Your task to perform on an android device: turn off location history Image 0: 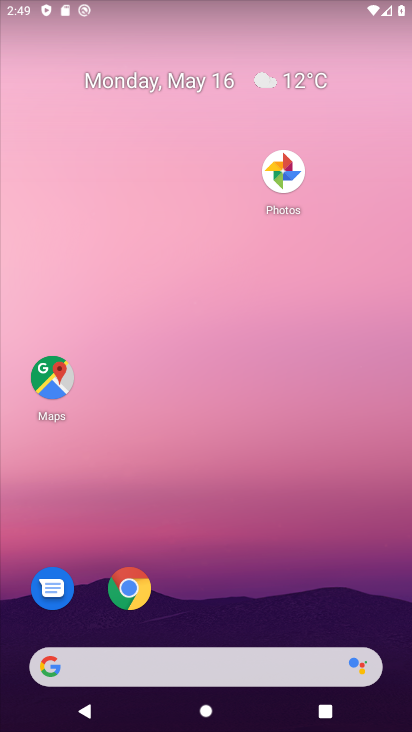
Step 0: drag from (218, 628) to (393, 1)
Your task to perform on an android device: turn off location history Image 1: 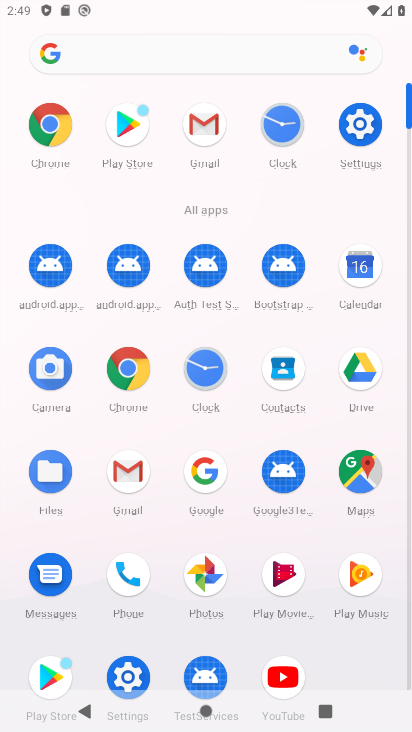
Step 1: click (370, 207)
Your task to perform on an android device: turn off location history Image 2: 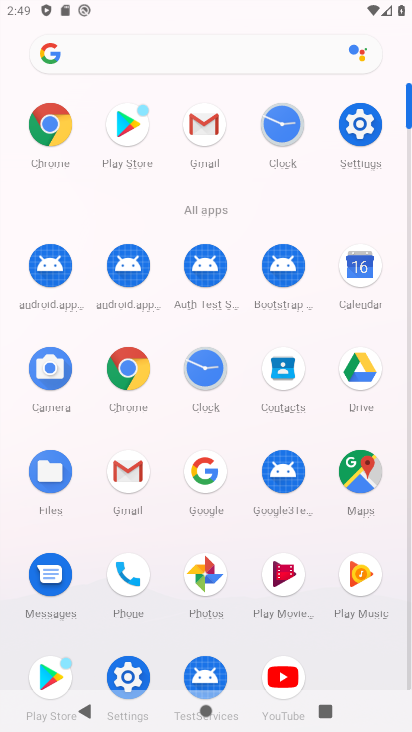
Step 2: click (364, 168)
Your task to perform on an android device: turn off location history Image 3: 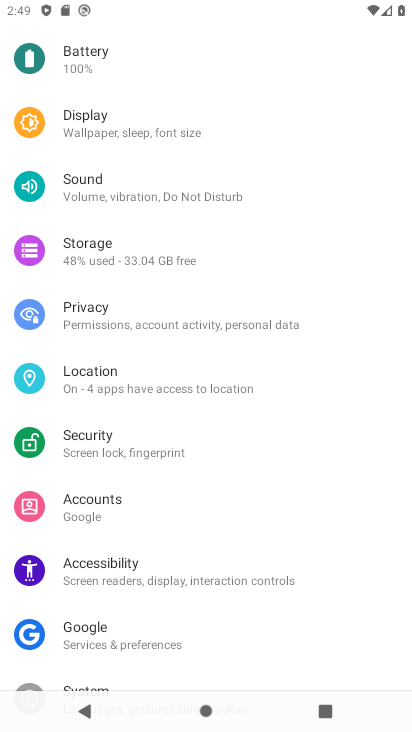
Step 3: click (142, 384)
Your task to perform on an android device: turn off location history Image 4: 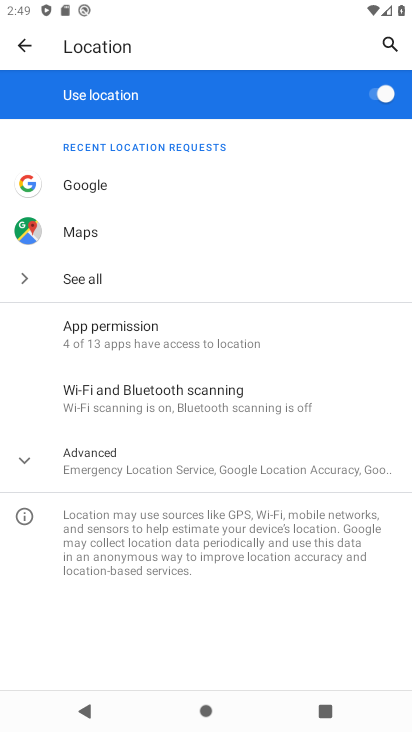
Step 4: click (220, 475)
Your task to perform on an android device: turn off location history Image 5: 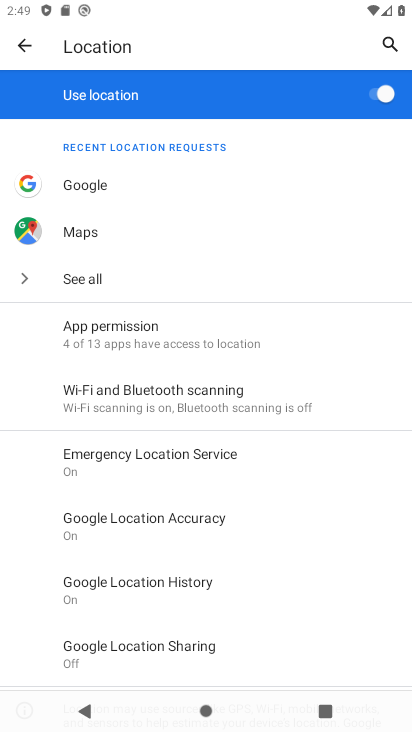
Step 5: click (219, 580)
Your task to perform on an android device: turn off location history Image 6: 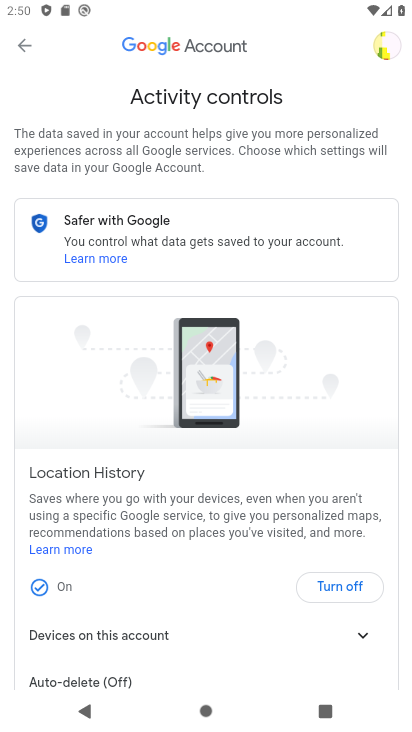
Step 6: click (329, 589)
Your task to perform on an android device: turn off location history Image 7: 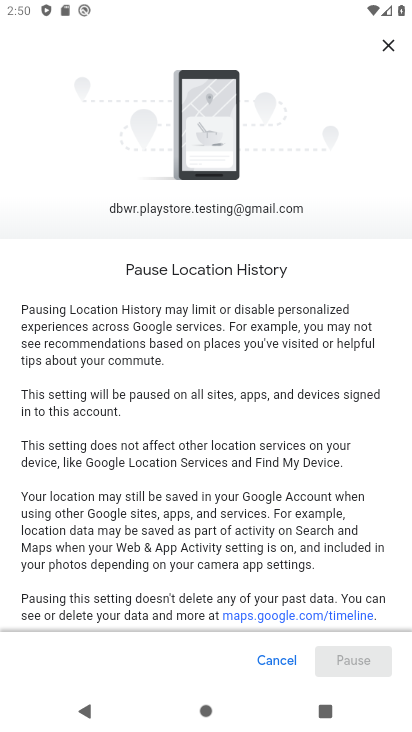
Step 7: drag from (274, 588) to (262, 178)
Your task to perform on an android device: turn off location history Image 8: 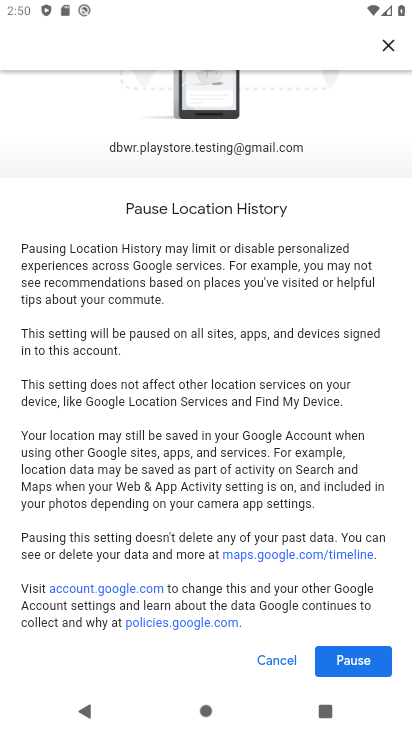
Step 8: click (378, 665)
Your task to perform on an android device: turn off location history Image 9: 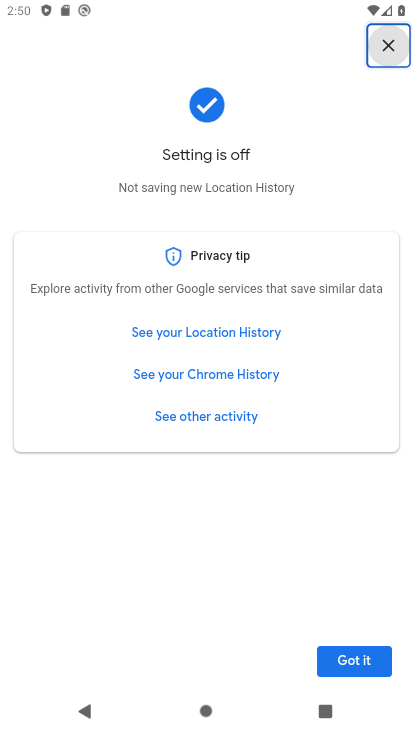
Step 9: task complete